Your task to perform on an android device: find snoozed emails in the gmail app Image 0: 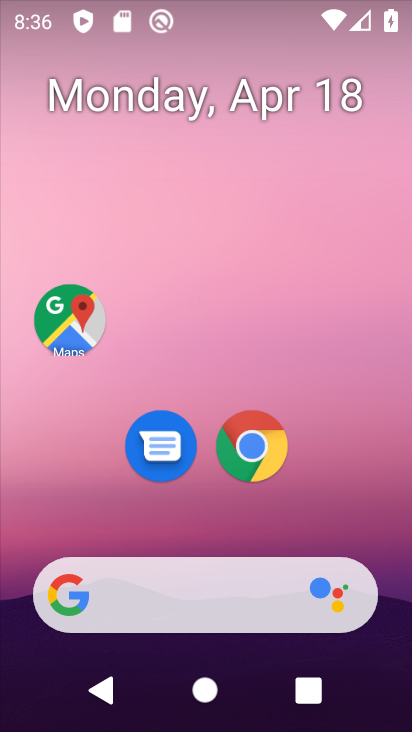
Step 0: drag from (211, 514) to (190, 12)
Your task to perform on an android device: find snoozed emails in the gmail app Image 1: 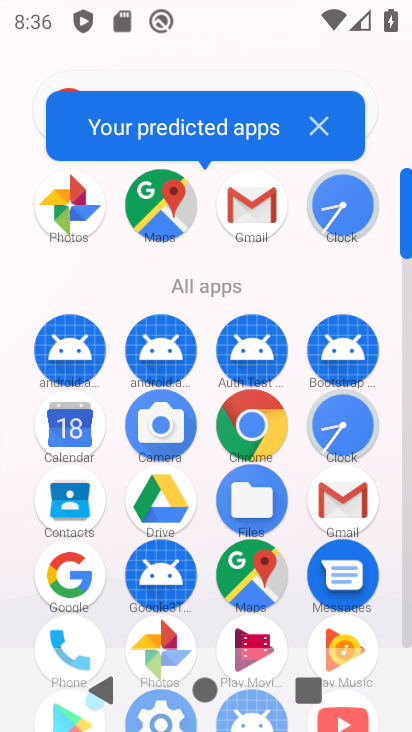
Step 1: click (342, 496)
Your task to perform on an android device: find snoozed emails in the gmail app Image 2: 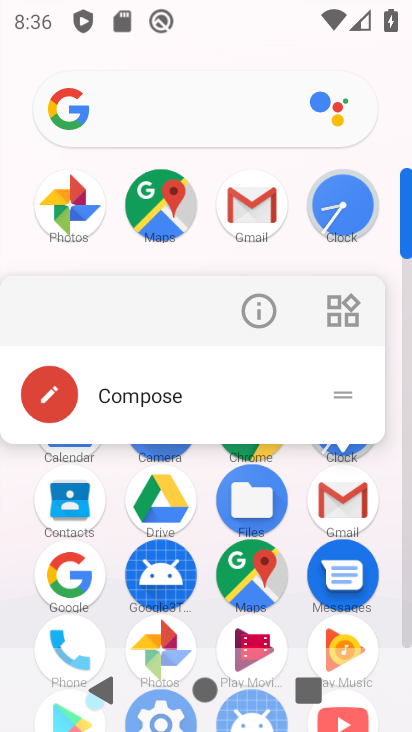
Step 2: click (342, 496)
Your task to perform on an android device: find snoozed emails in the gmail app Image 3: 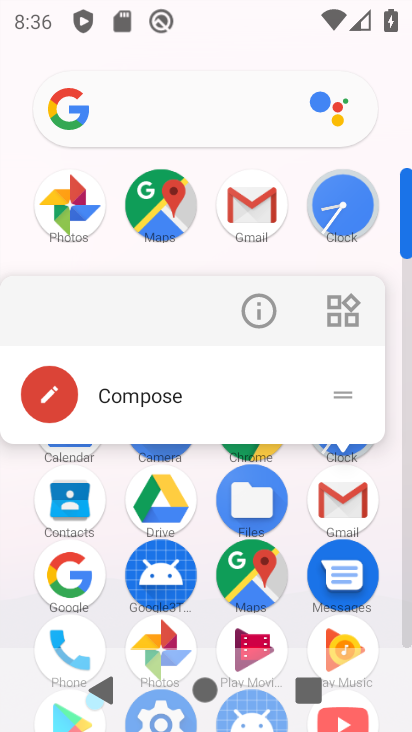
Step 3: click (348, 494)
Your task to perform on an android device: find snoozed emails in the gmail app Image 4: 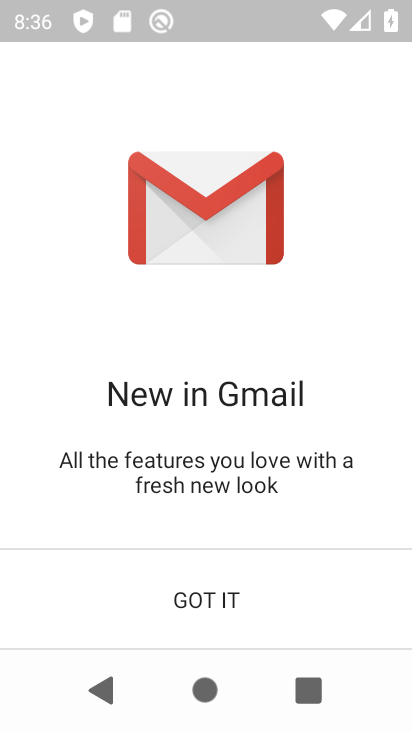
Step 4: click (217, 620)
Your task to perform on an android device: find snoozed emails in the gmail app Image 5: 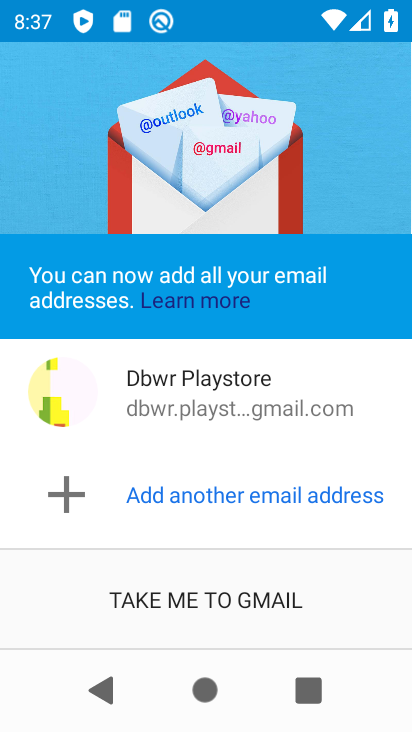
Step 5: click (203, 615)
Your task to perform on an android device: find snoozed emails in the gmail app Image 6: 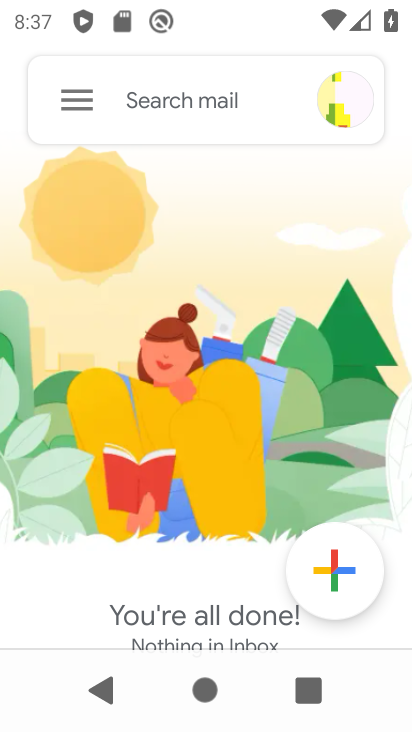
Step 6: click (76, 94)
Your task to perform on an android device: find snoozed emails in the gmail app Image 7: 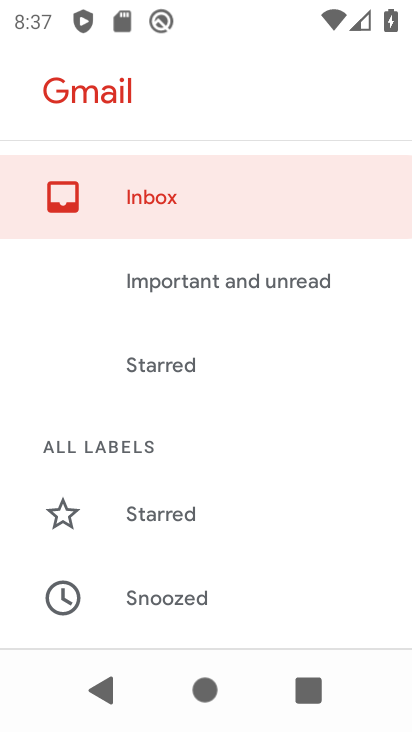
Step 7: click (120, 596)
Your task to perform on an android device: find snoozed emails in the gmail app Image 8: 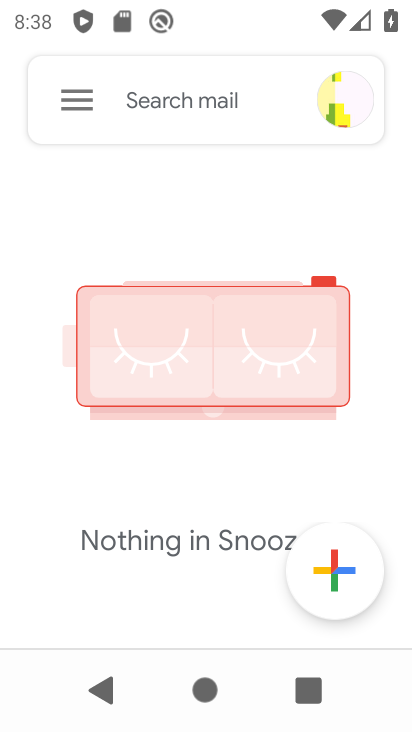
Step 8: task complete